Your task to perform on an android device: uninstall "Nova Launcher" Image 0: 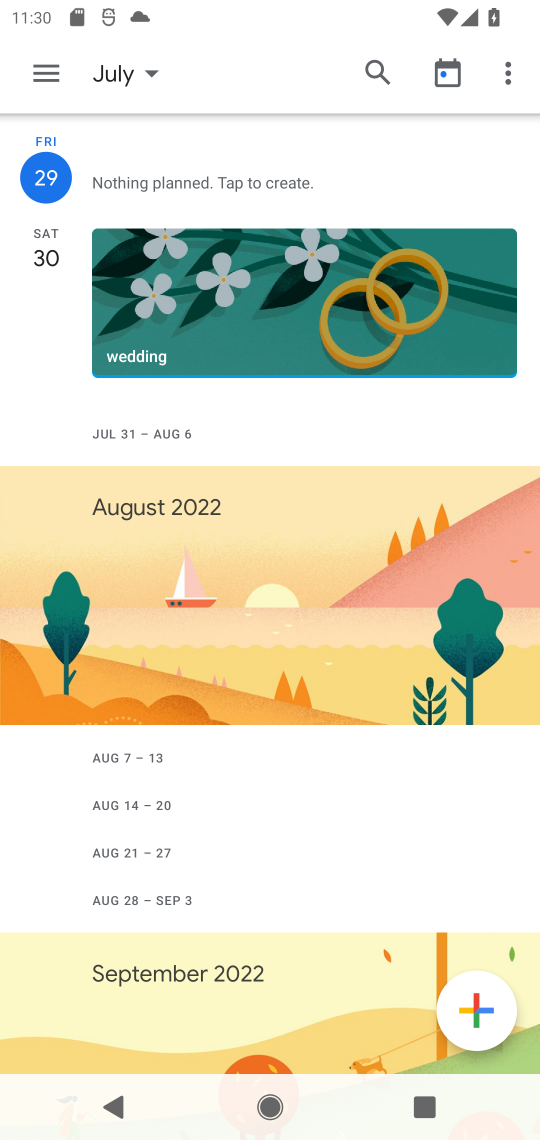
Step 0: press home button
Your task to perform on an android device: uninstall "Nova Launcher" Image 1: 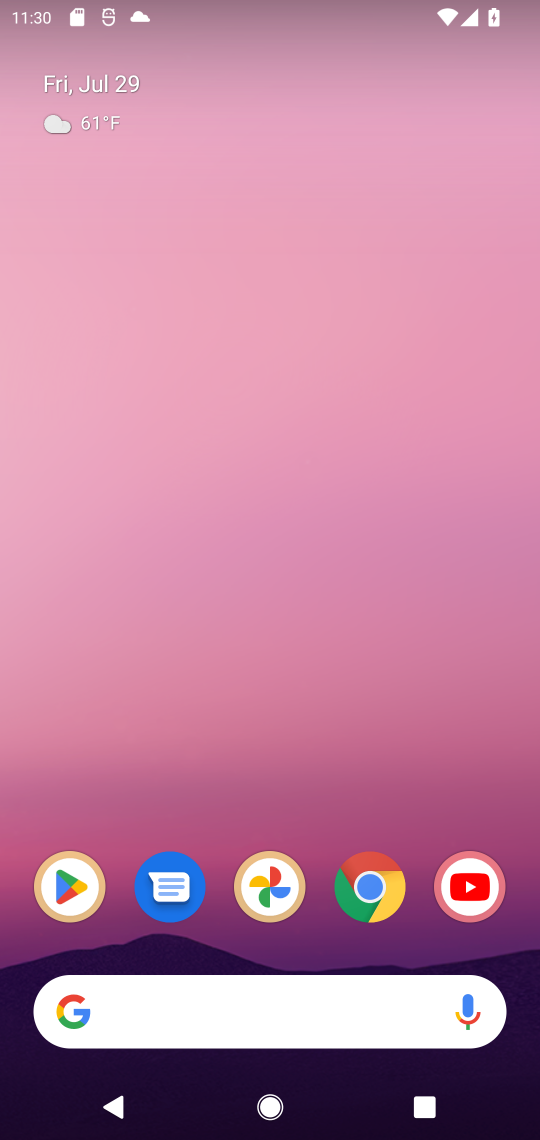
Step 1: drag from (236, 1036) to (396, 118)
Your task to perform on an android device: uninstall "Nova Launcher" Image 2: 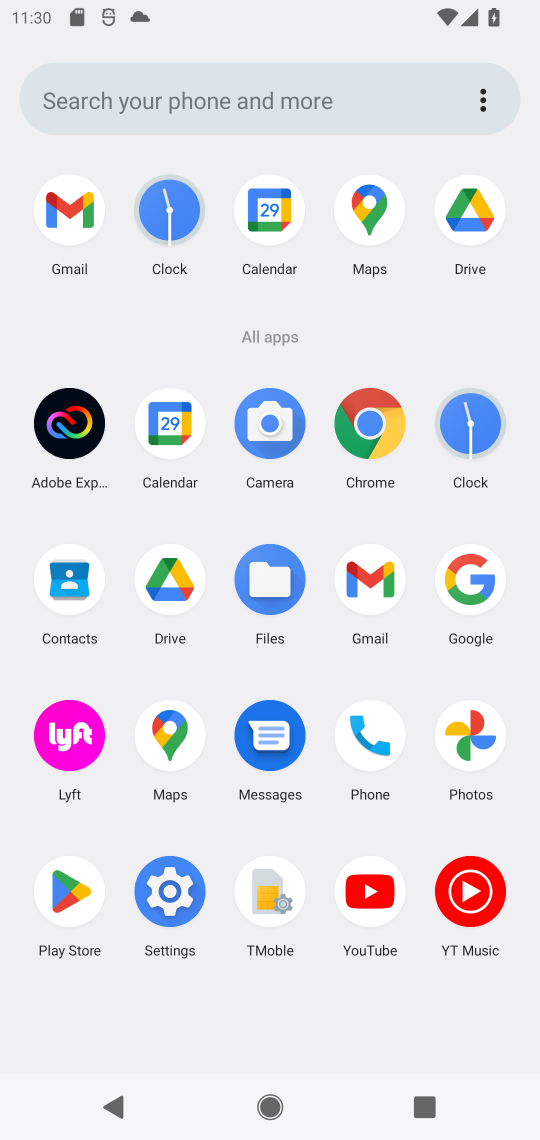
Step 2: click (74, 889)
Your task to perform on an android device: uninstall "Nova Launcher" Image 3: 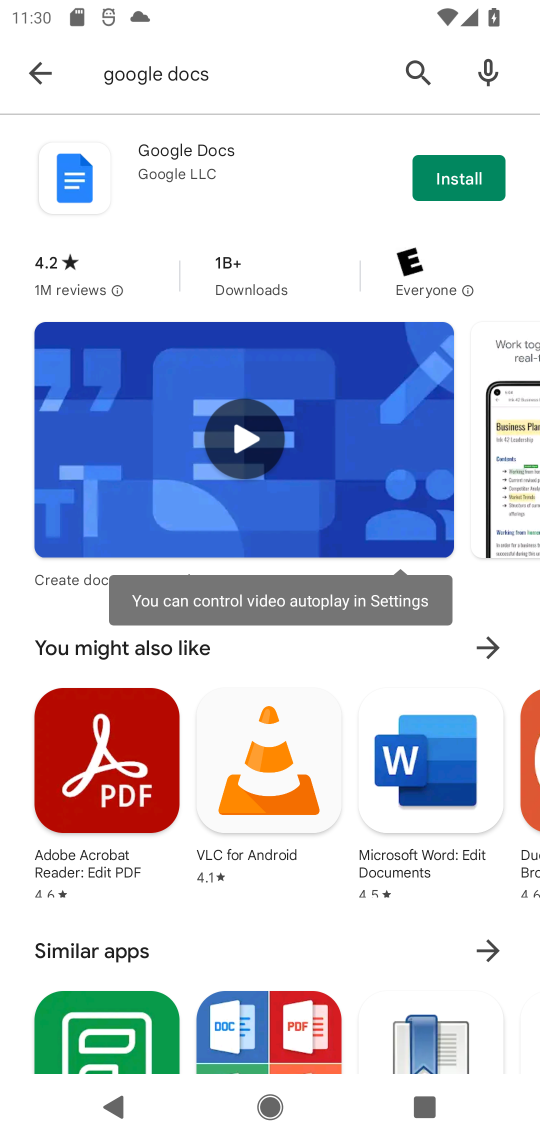
Step 3: click (420, 71)
Your task to perform on an android device: uninstall "Nova Launcher" Image 4: 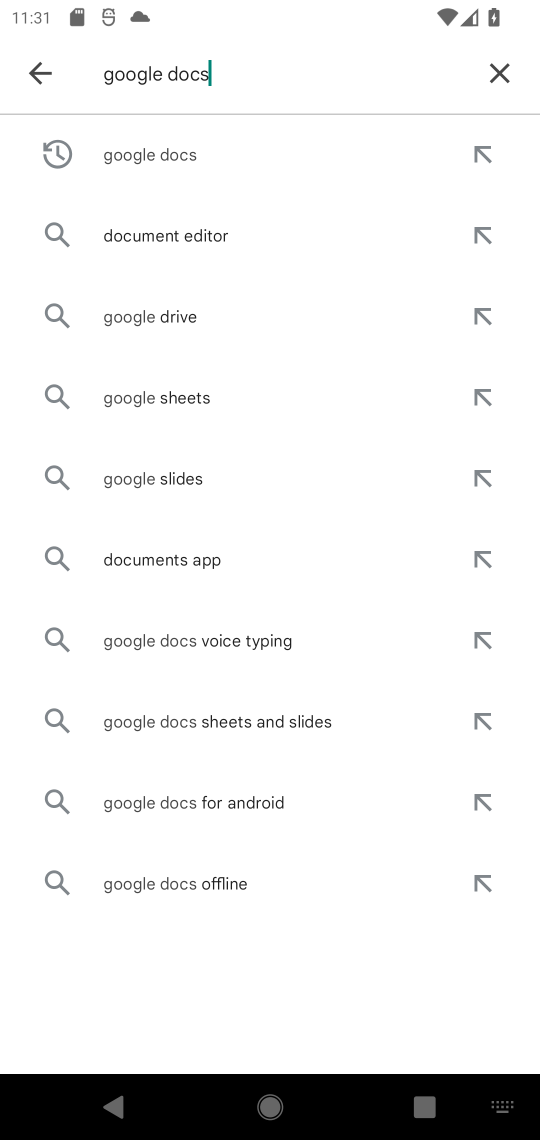
Step 4: click (492, 71)
Your task to perform on an android device: uninstall "Nova Launcher" Image 5: 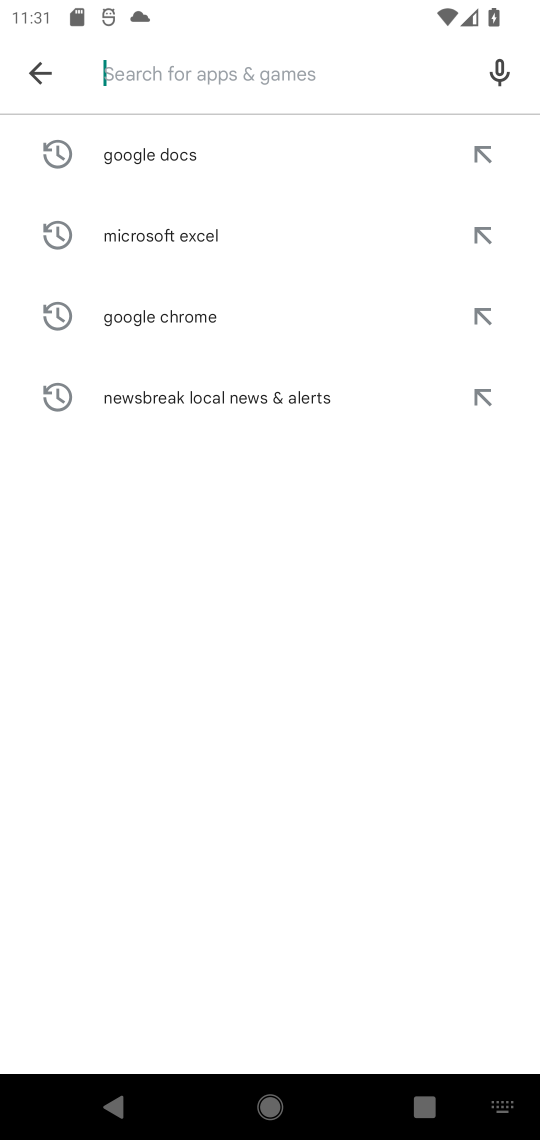
Step 5: type "Nova Launcher"
Your task to perform on an android device: uninstall "Nova Launcher" Image 6: 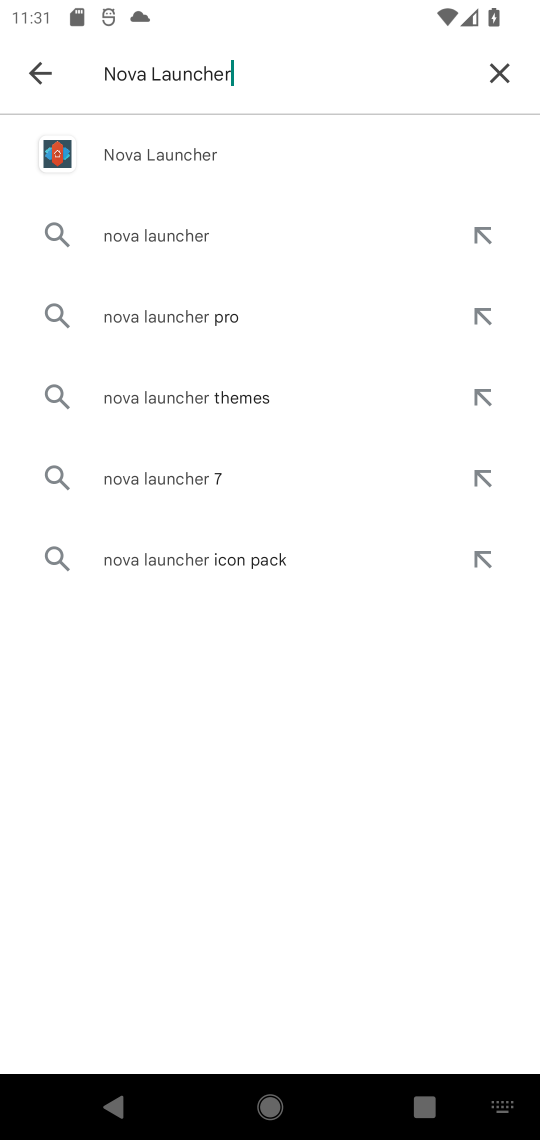
Step 6: click (186, 154)
Your task to perform on an android device: uninstall "Nova Launcher" Image 7: 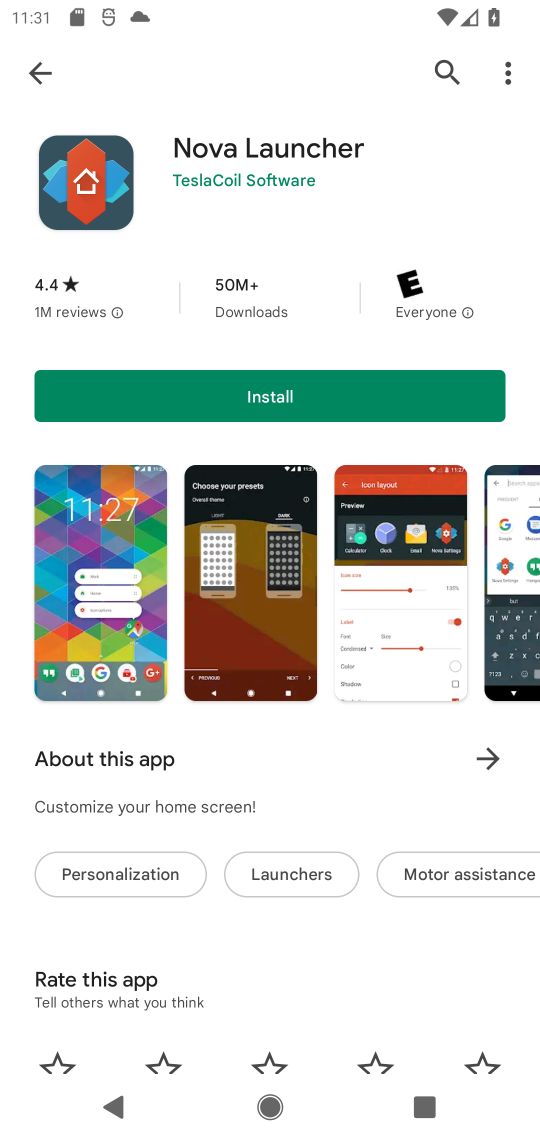
Step 7: task complete